Your task to perform on an android device: remove spam from my inbox in the gmail app Image 0: 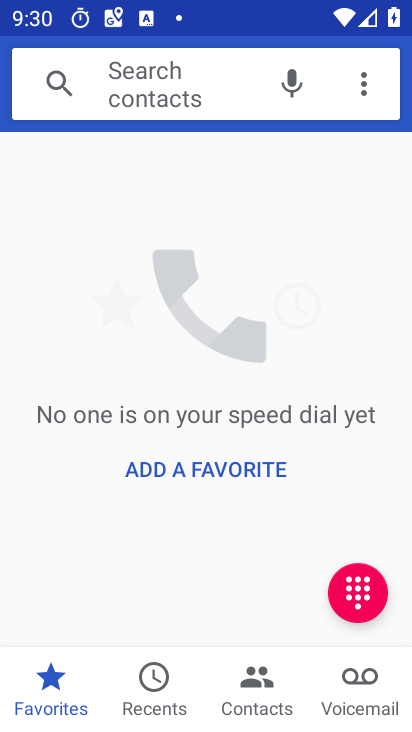
Step 0: press home button
Your task to perform on an android device: remove spam from my inbox in the gmail app Image 1: 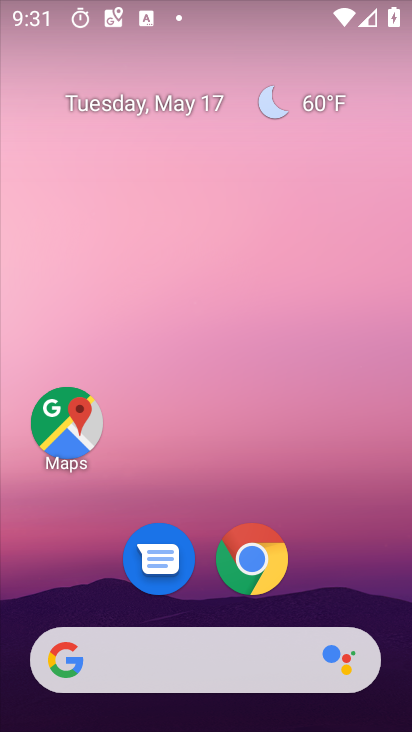
Step 1: drag from (279, 677) to (301, 169)
Your task to perform on an android device: remove spam from my inbox in the gmail app Image 2: 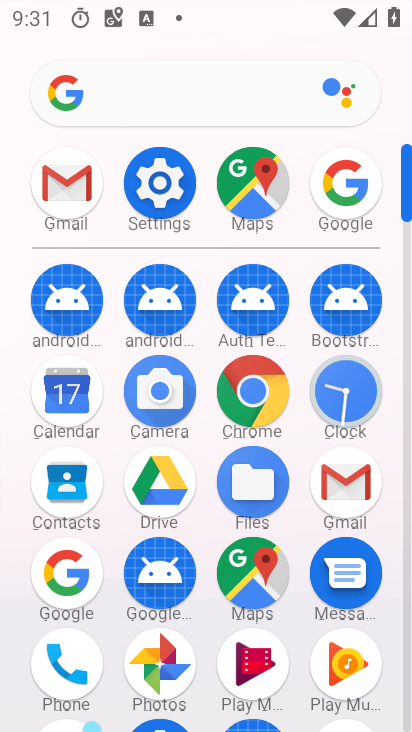
Step 2: click (334, 481)
Your task to perform on an android device: remove spam from my inbox in the gmail app Image 3: 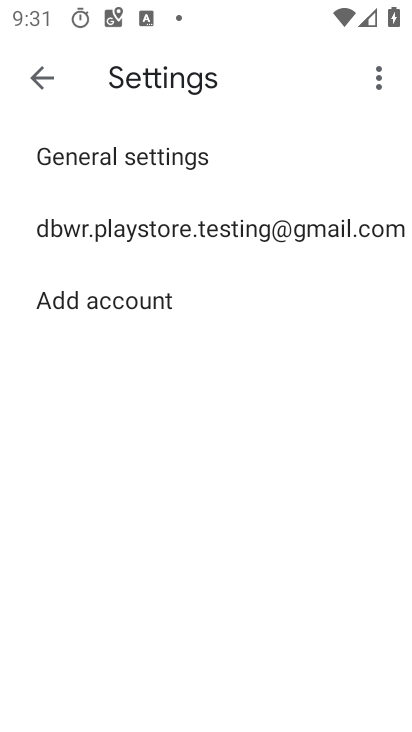
Step 3: click (27, 80)
Your task to perform on an android device: remove spam from my inbox in the gmail app Image 4: 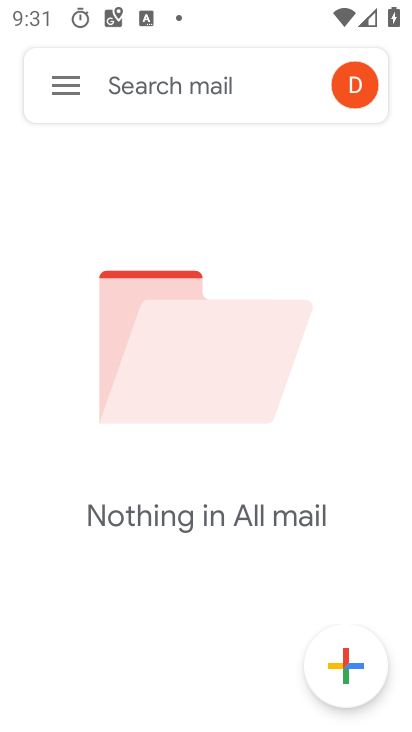
Step 4: click (51, 79)
Your task to perform on an android device: remove spam from my inbox in the gmail app Image 5: 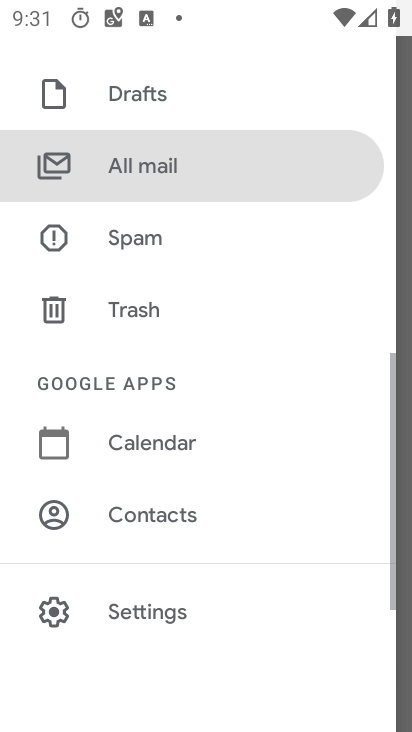
Step 5: click (141, 264)
Your task to perform on an android device: remove spam from my inbox in the gmail app Image 6: 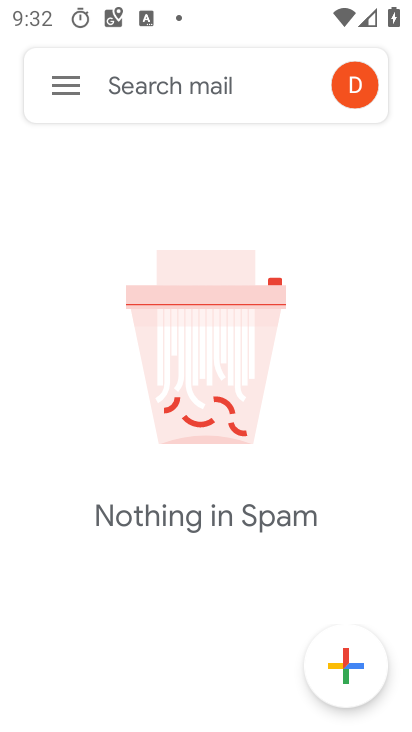
Step 6: task complete